Your task to perform on an android device: Search for vegetarian restaurants on Maps Image 0: 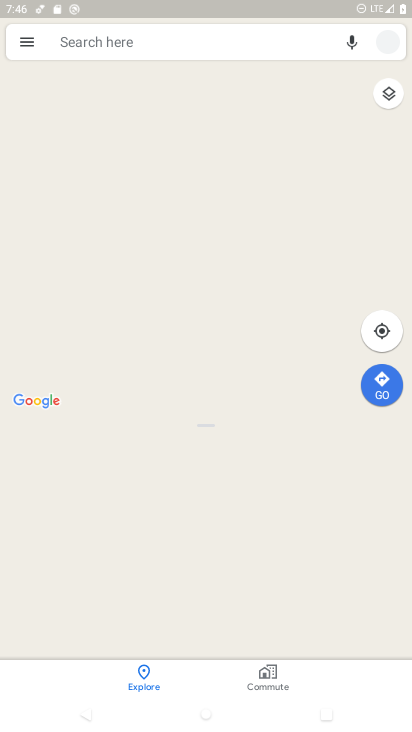
Step 0: press home button
Your task to perform on an android device: Search for vegetarian restaurants on Maps Image 1: 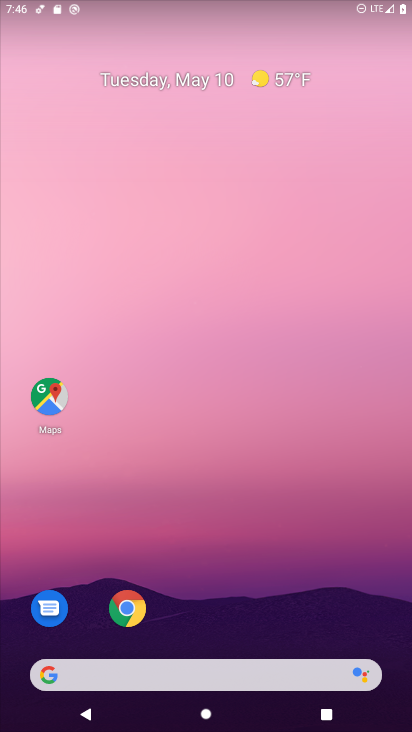
Step 1: drag from (347, 606) to (323, 150)
Your task to perform on an android device: Search for vegetarian restaurants on Maps Image 2: 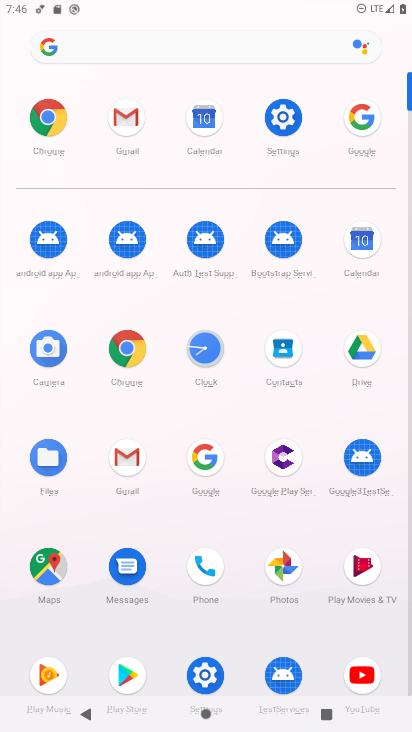
Step 2: click (49, 561)
Your task to perform on an android device: Search for vegetarian restaurants on Maps Image 3: 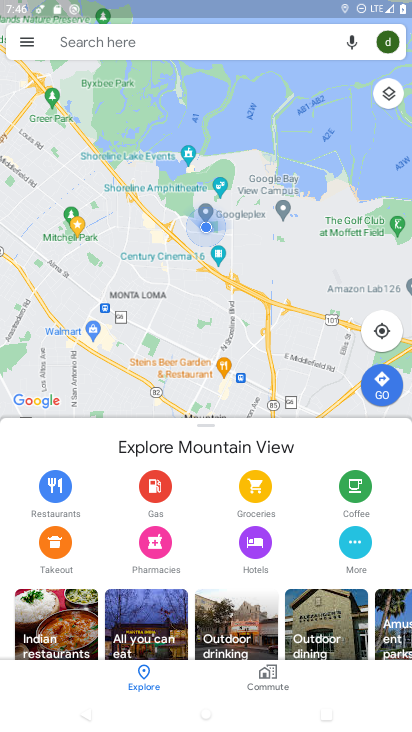
Step 3: click (173, 44)
Your task to perform on an android device: Search for vegetarian restaurants on Maps Image 4: 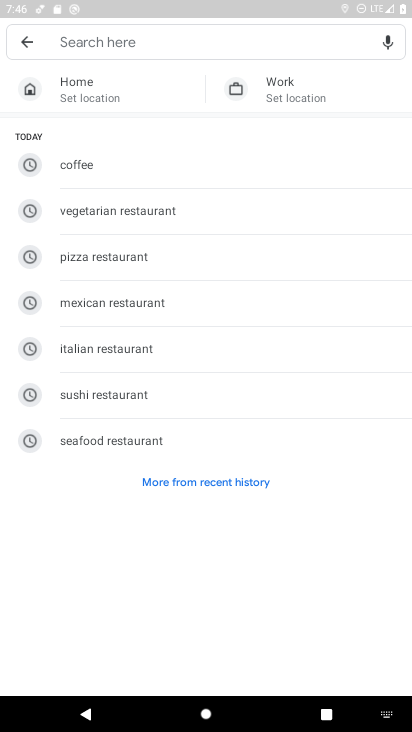
Step 4: click (149, 215)
Your task to perform on an android device: Search for vegetarian restaurants on Maps Image 5: 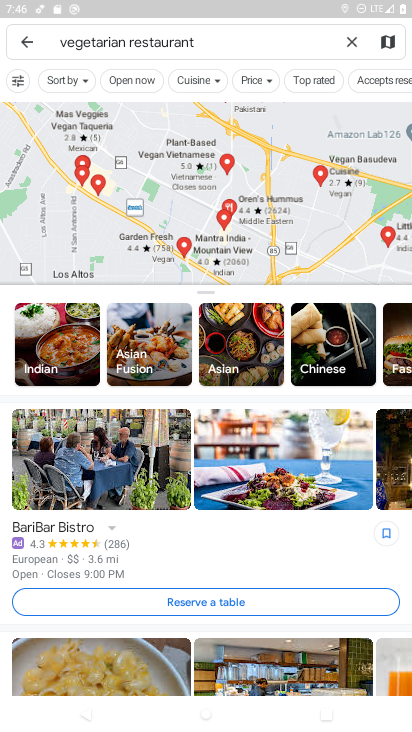
Step 5: task complete